Your task to perform on an android device: manage bookmarks in the chrome app Image 0: 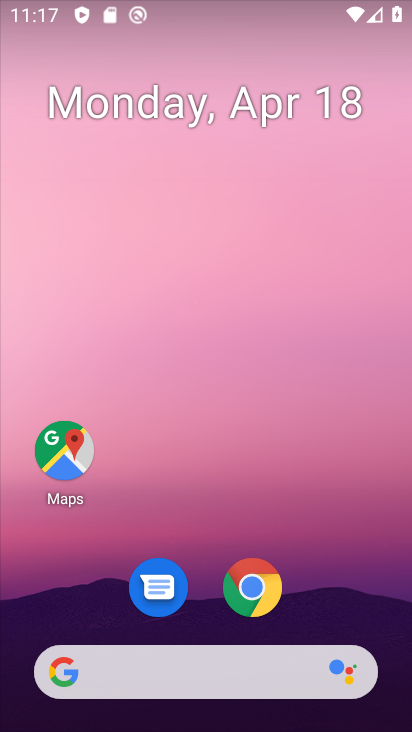
Step 0: drag from (339, 587) to (343, 46)
Your task to perform on an android device: manage bookmarks in the chrome app Image 1: 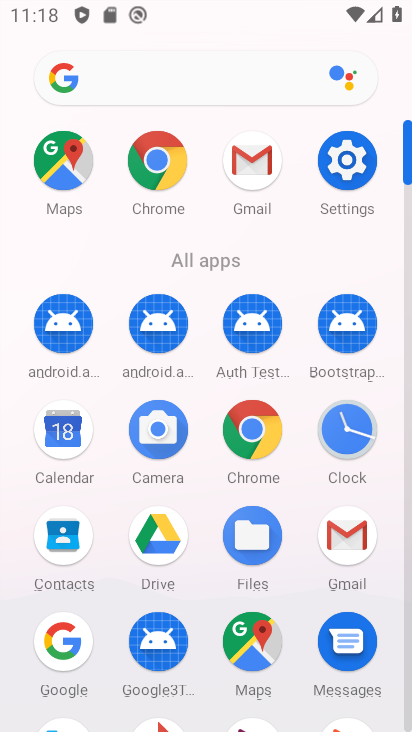
Step 1: click (249, 426)
Your task to perform on an android device: manage bookmarks in the chrome app Image 2: 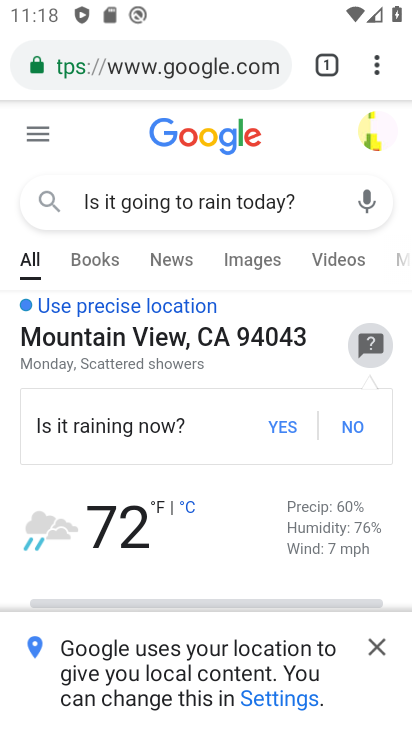
Step 2: task complete